Your task to perform on an android device: Open the web browser Image 0: 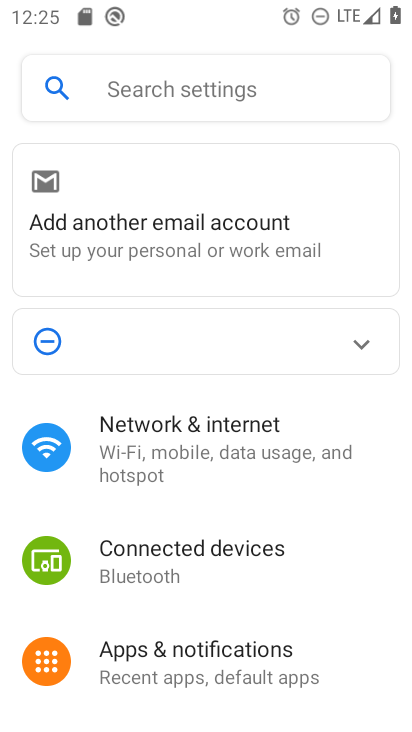
Step 0: press home button
Your task to perform on an android device: Open the web browser Image 1: 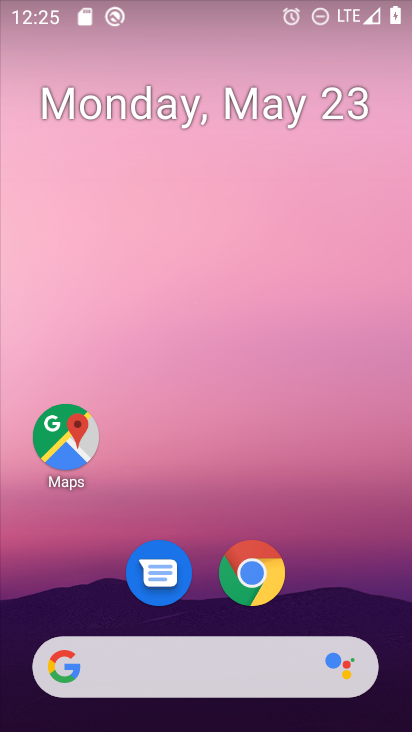
Step 1: click (255, 574)
Your task to perform on an android device: Open the web browser Image 2: 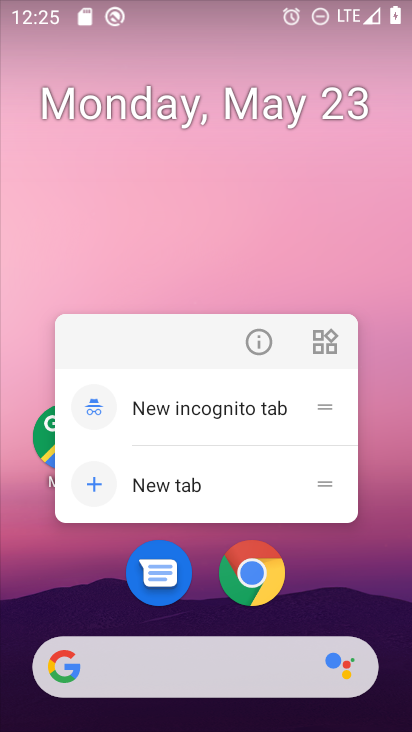
Step 2: click (255, 574)
Your task to perform on an android device: Open the web browser Image 3: 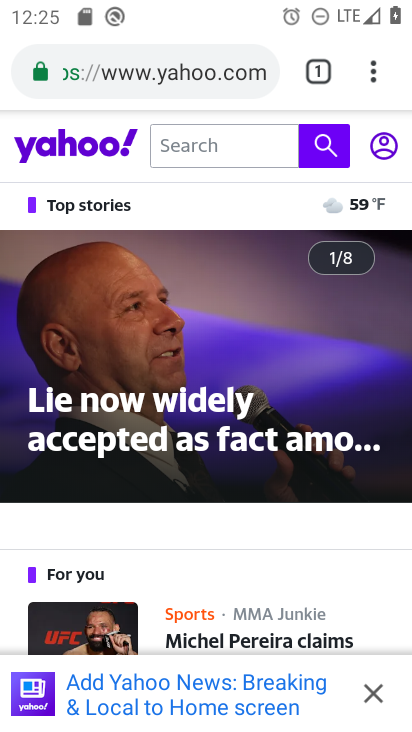
Step 3: task complete